Your task to perform on an android device: star an email in the gmail app Image 0: 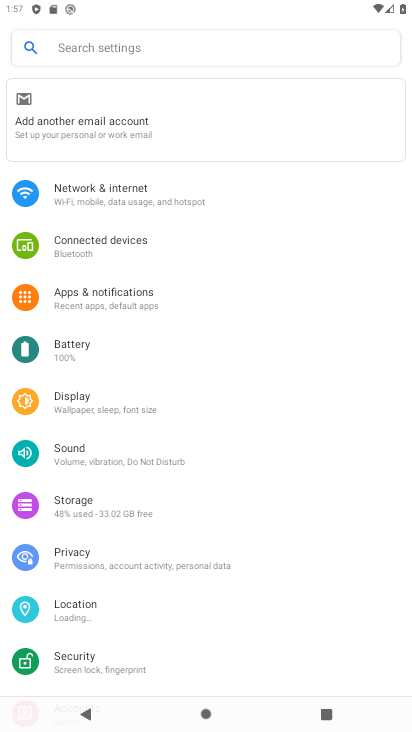
Step 0: press back button
Your task to perform on an android device: star an email in the gmail app Image 1: 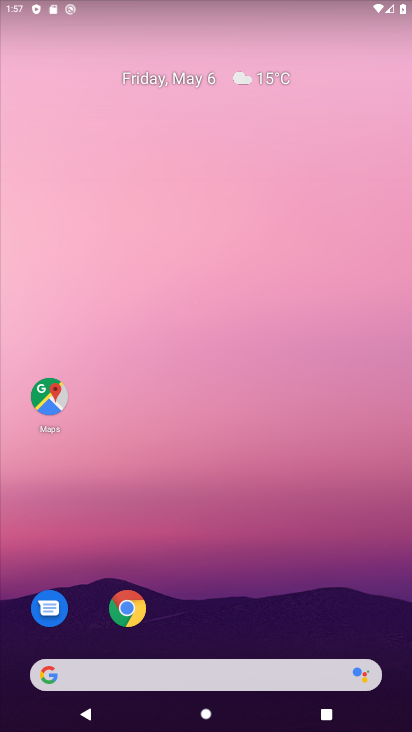
Step 1: drag from (222, 590) to (224, 39)
Your task to perform on an android device: star an email in the gmail app Image 2: 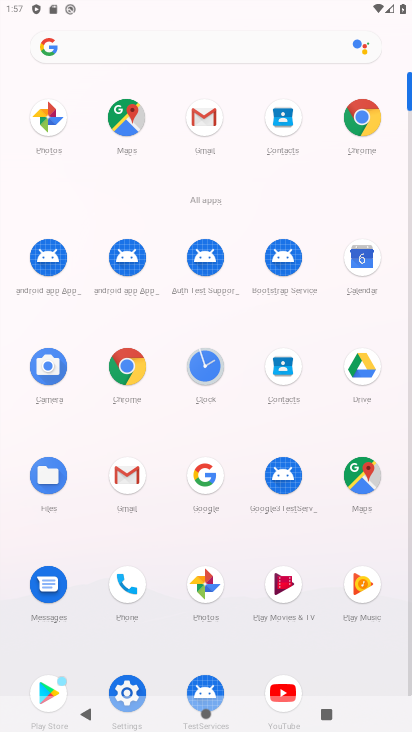
Step 2: click (204, 116)
Your task to perform on an android device: star an email in the gmail app Image 3: 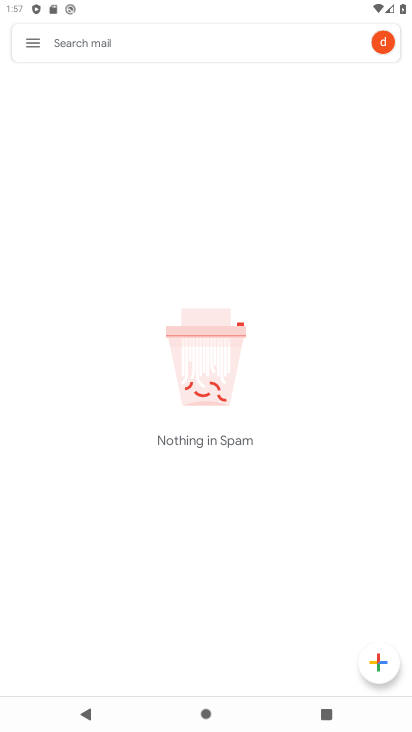
Step 3: click (29, 39)
Your task to perform on an android device: star an email in the gmail app Image 4: 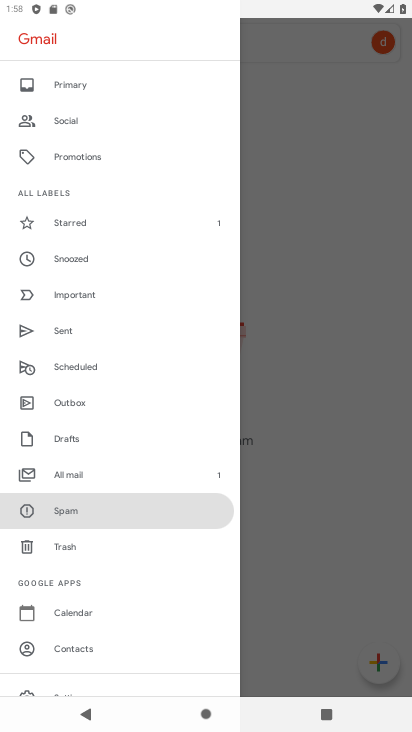
Step 4: click (78, 474)
Your task to perform on an android device: star an email in the gmail app Image 5: 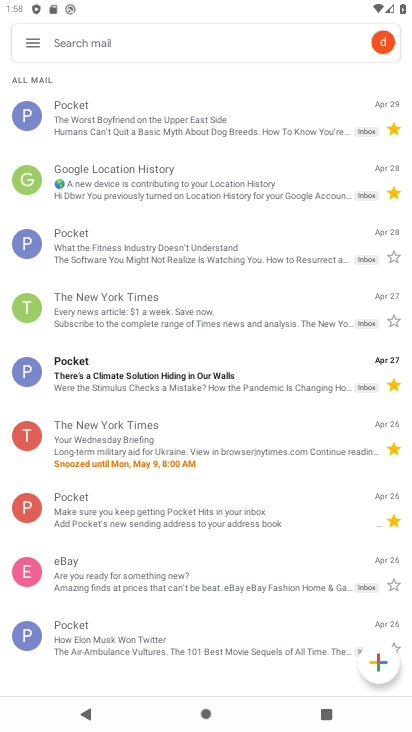
Step 5: click (388, 254)
Your task to perform on an android device: star an email in the gmail app Image 6: 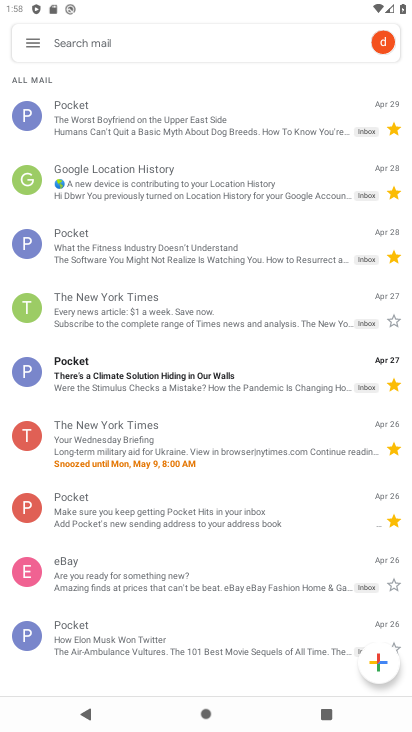
Step 6: task complete